Your task to perform on an android device: Open the stopwatch Image 0: 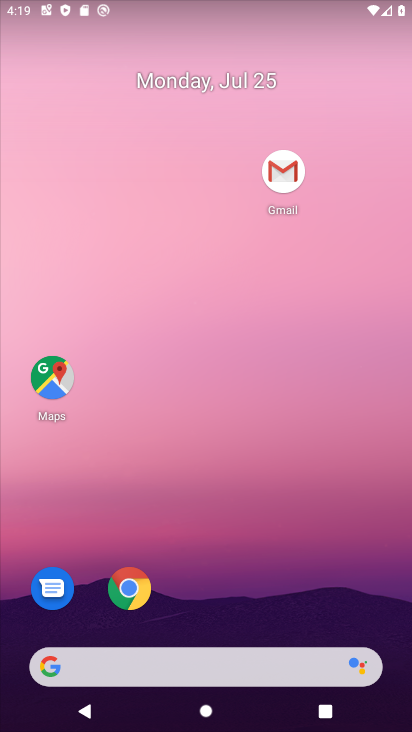
Step 0: drag from (315, 566) to (267, 3)
Your task to perform on an android device: Open the stopwatch Image 1: 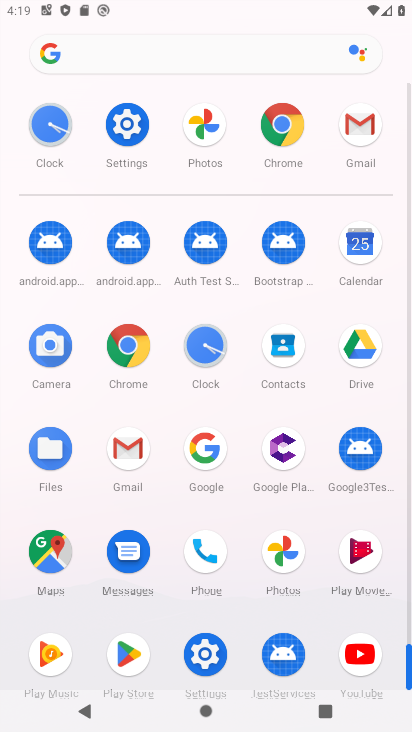
Step 1: click (194, 348)
Your task to perform on an android device: Open the stopwatch Image 2: 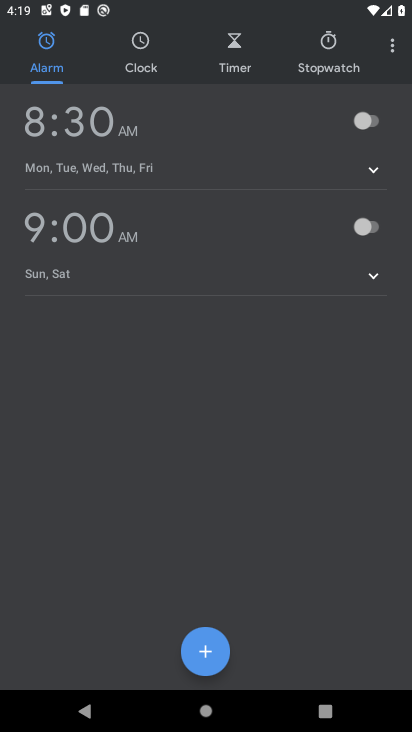
Step 2: click (333, 62)
Your task to perform on an android device: Open the stopwatch Image 3: 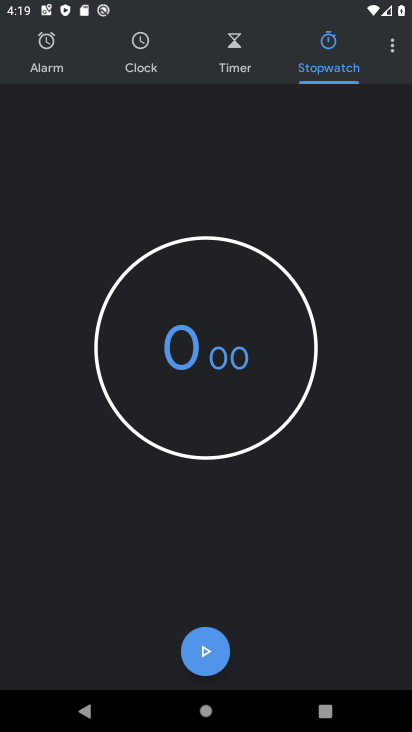
Step 3: task complete